Your task to perform on an android device: Play the last video I watched on Youtube Image 0: 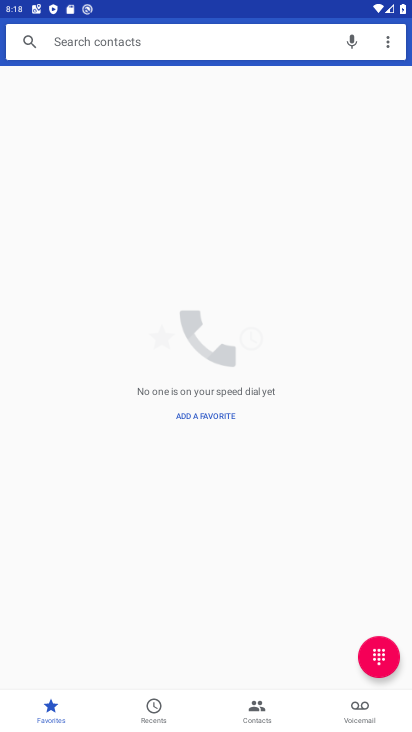
Step 0: press home button
Your task to perform on an android device: Play the last video I watched on Youtube Image 1: 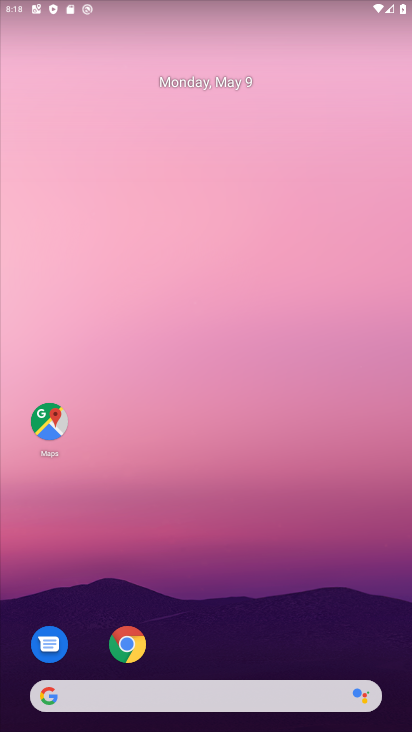
Step 1: drag from (183, 577) to (162, 60)
Your task to perform on an android device: Play the last video I watched on Youtube Image 2: 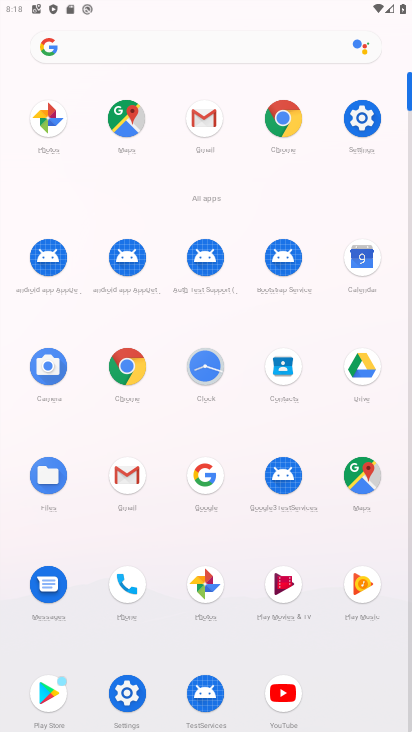
Step 2: click (287, 694)
Your task to perform on an android device: Play the last video I watched on Youtube Image 3: 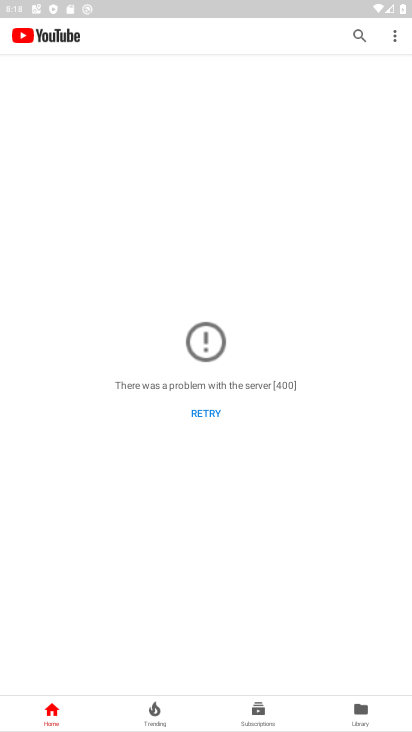
Step 3: click (361, 709)
Your task to perform on an android device: Play the last video I watched on Youtube Image 4: 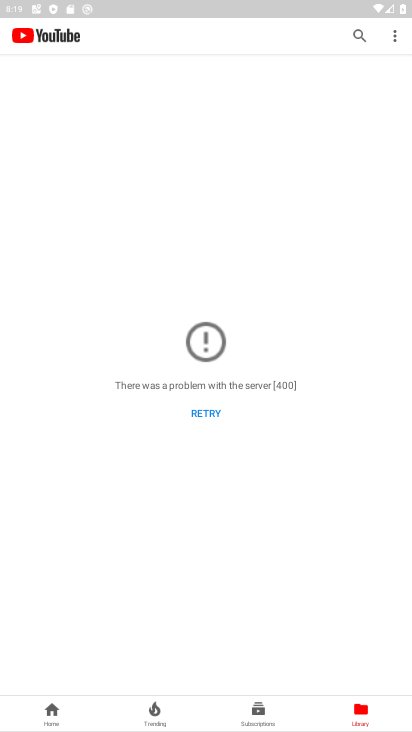
Step 4: click (362, 713)
Your task to perform on an android device: Play the last video I watched on Youtube Image 5: 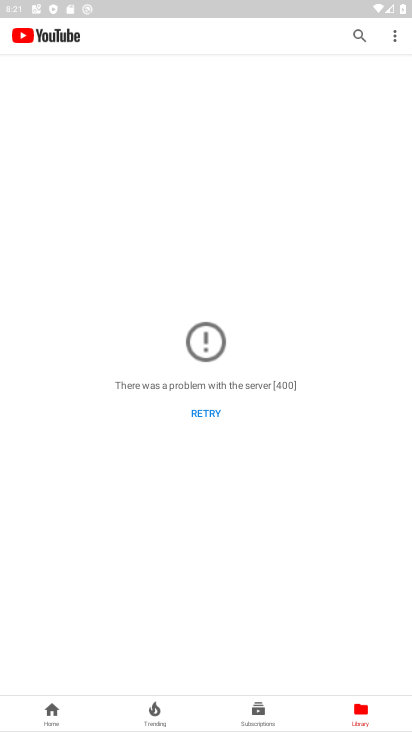
Step 5: task complete